Your task to perform on an android device: toggle airplane mode Image 0: 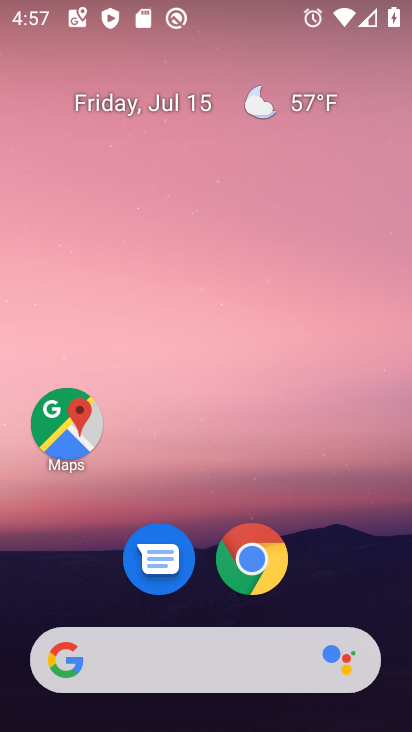
Step 0: drag from (97, 515) to (173, 12)
Your task to perform on an android device: toggle airplane mode Image 1: 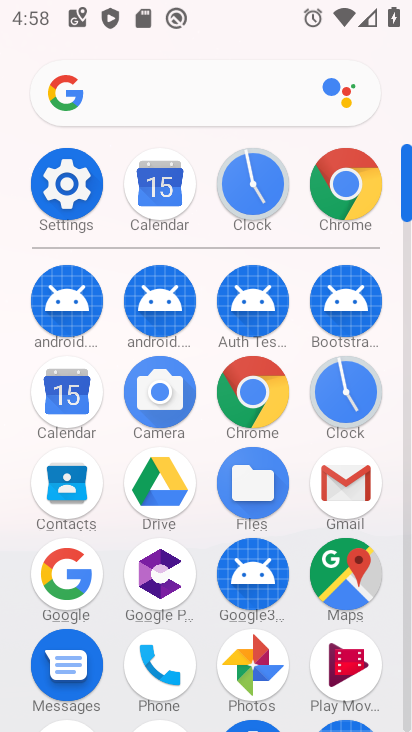
Step 1: drag from (348, 14) to (204, 588)
Your task to perform on an android device: toggle airplane mode Image 2: 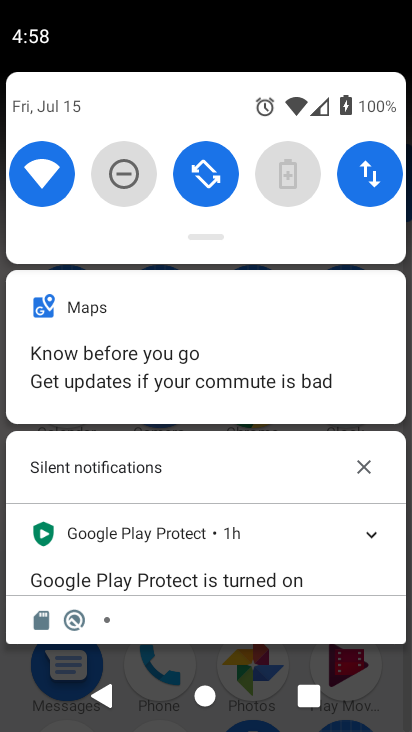
Step 2: drag from (211, 225) to (136, 612)
Your task to perform on an android device: toggle airplane mode Image 3: 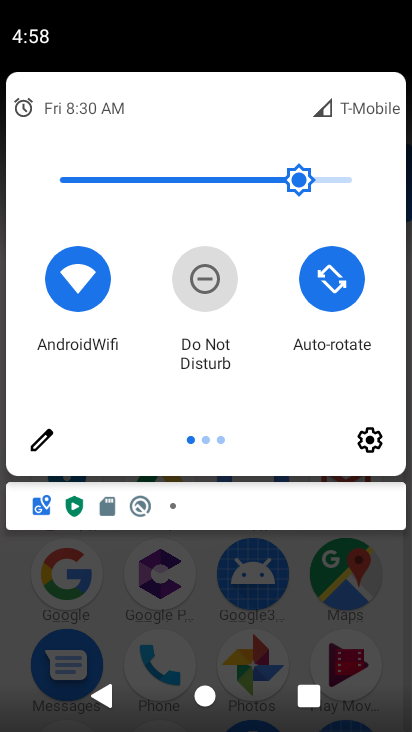
Step 3: drag from (353, 279) to (2, 322)
Your task to perform on an android device: toggle airplane mode Image 4: 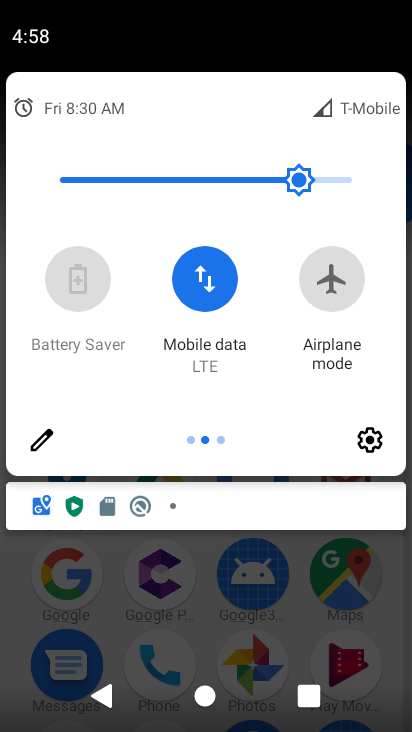
Step 4: click (319, 278)
Your task to perform on an android device: toggle airplane mode Image 5: 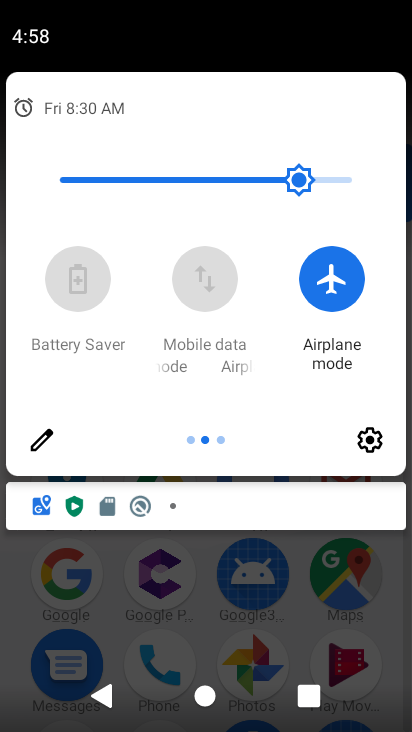
Step 5: task complete